Your task to perform on an android device: Find coffee shops on Maps Image 0: 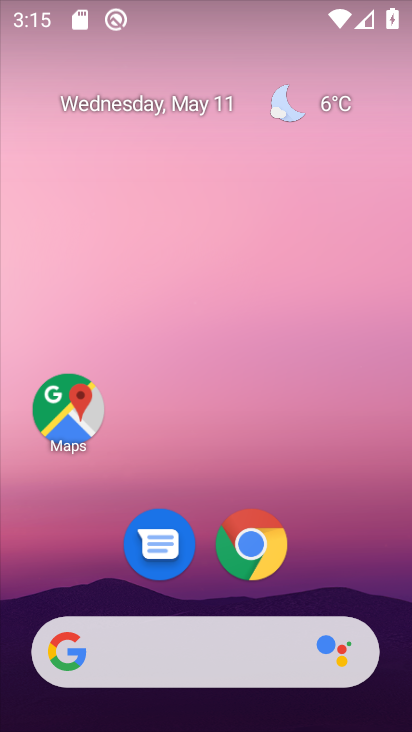
Step 0: click (80, 413)
Your task to perform on an android device: Find coffee shops on Maps Image 1: 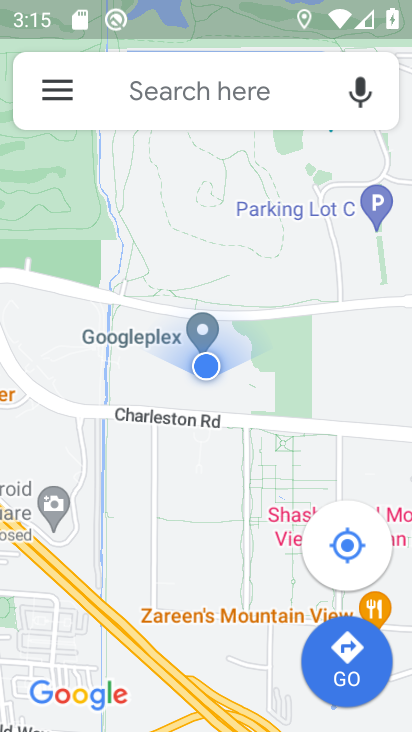
Step 1: click (244, 83)
Your task to perform on an android device: Find coffee shops on Maps Image 2: 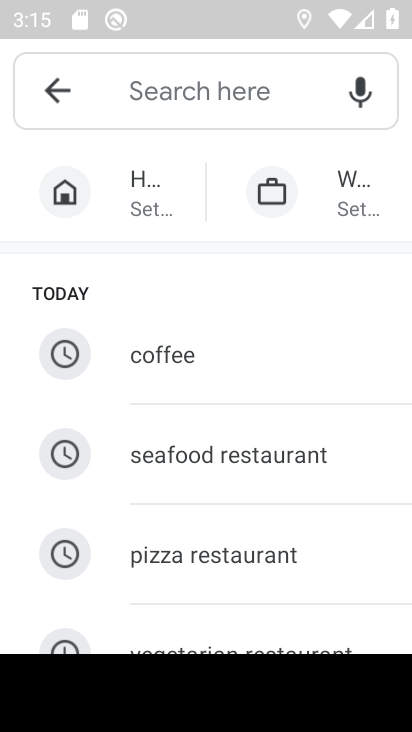
Step 2: type "coffee shops"
Your task to perform on an android device: Find coffee shops on Maps Image 3: 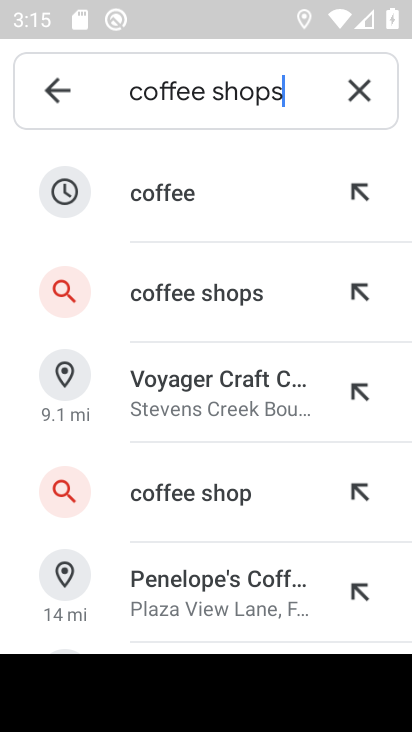
Step 3: click (204, 295)
Your task to perform on an android device: Find coffee shops on Maps Image 4: 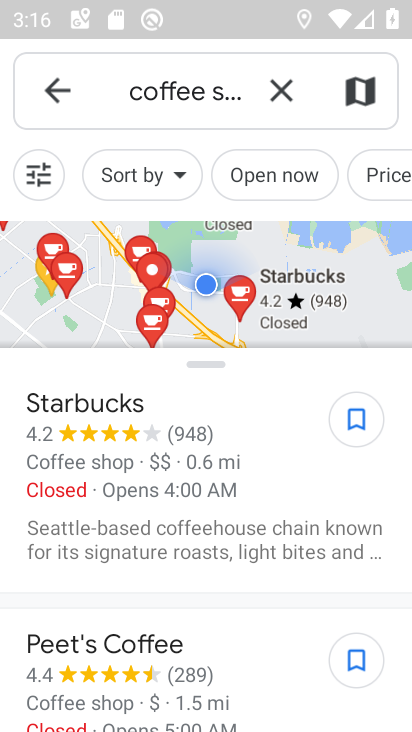
Step 4: task complete